Your task to perform on an android device: Open network settings Image 0: 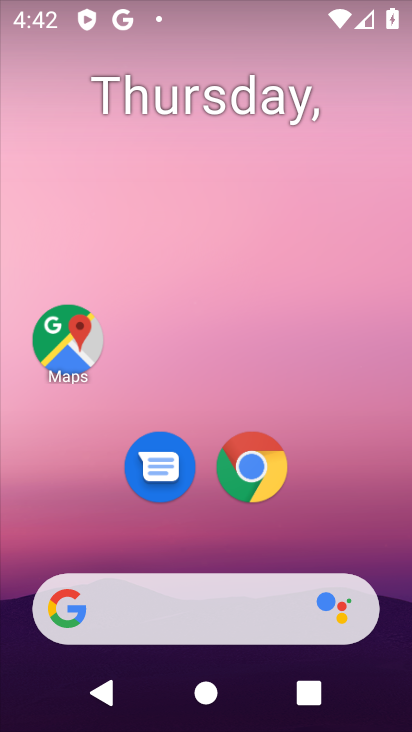
Step 0: drag from (346, 475) to (402, 26)
Your task to perform on an android device: Open network settings Image 1: 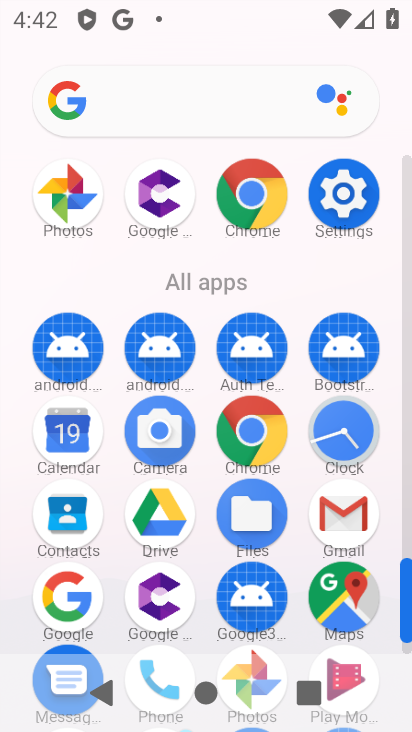
Step 1: click (340, 184)
Your task to perform on an android device: Open network settings Image 2: 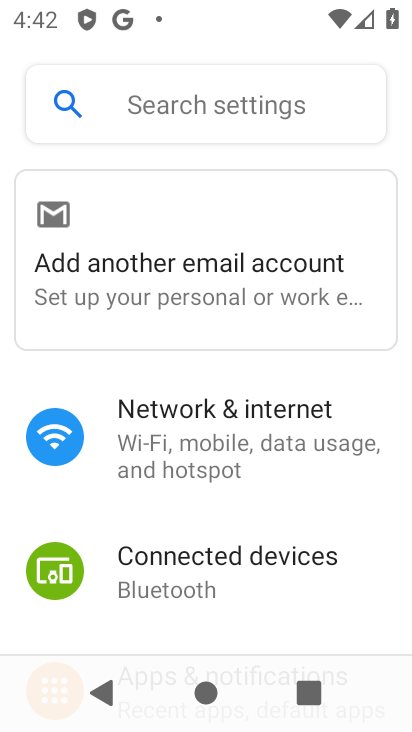
Step 2: click (246, 430)
Your task to perform on an android device: Open network settings Image 3: 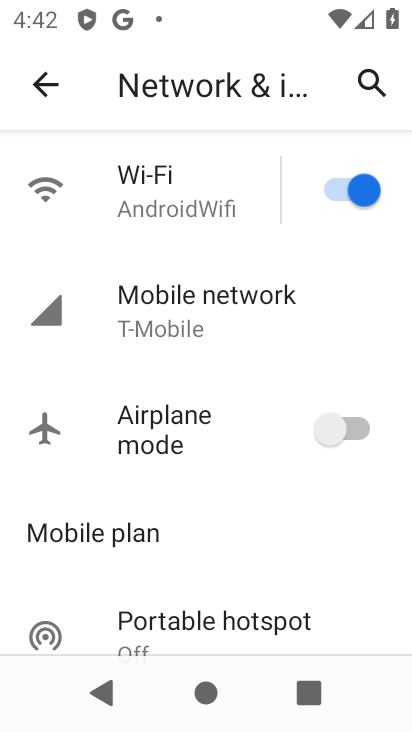
Step 3: task complete